Your task to perform on an android device: When is my next appointment? Image 0: 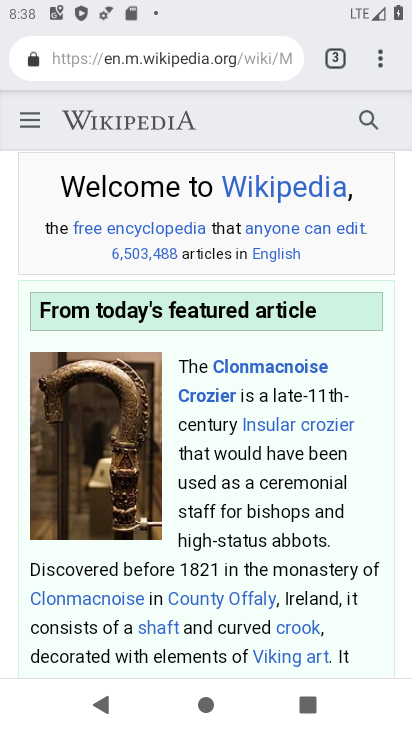
Step 0: press home button
Your task to perform on an android device: When is my next appointment? Image 1: 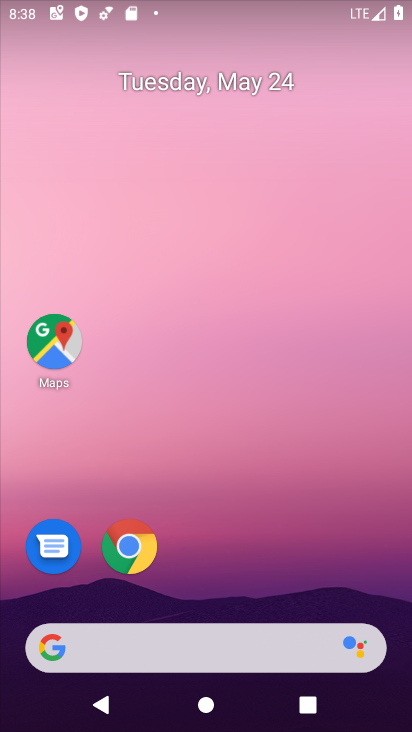
Step 1: drag from (263, 539) to (252, 33)
Your task to perform on an android device: When is my next appointment? Image 2: 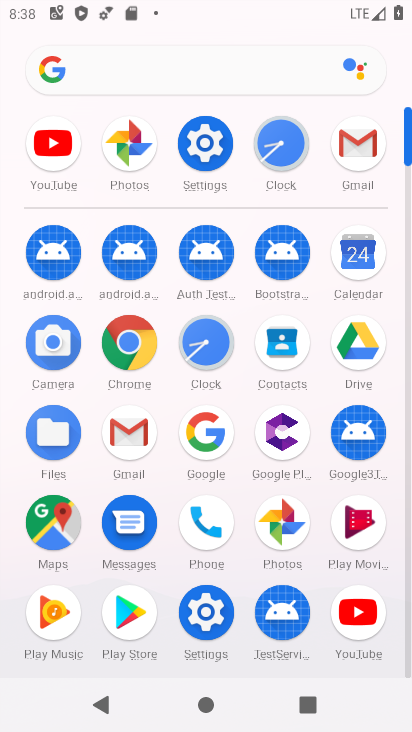
Step 2: click (350, 247)
Your task to perform on an android device: When is my next appointment? Image 3: 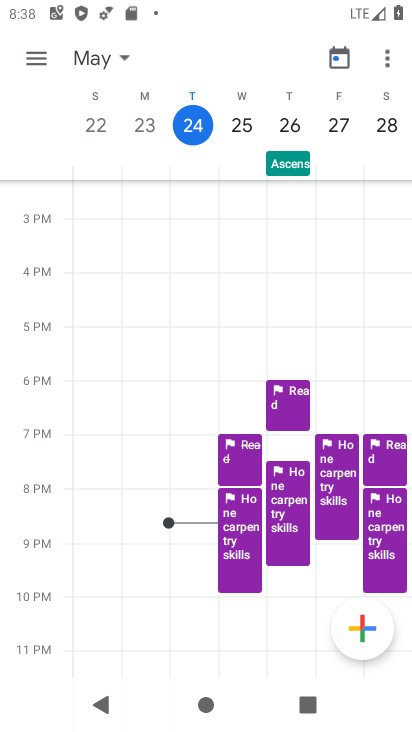
Step 3: click (39, 54)
Your task to perform on an android device: When is my next appointment? Image 4: 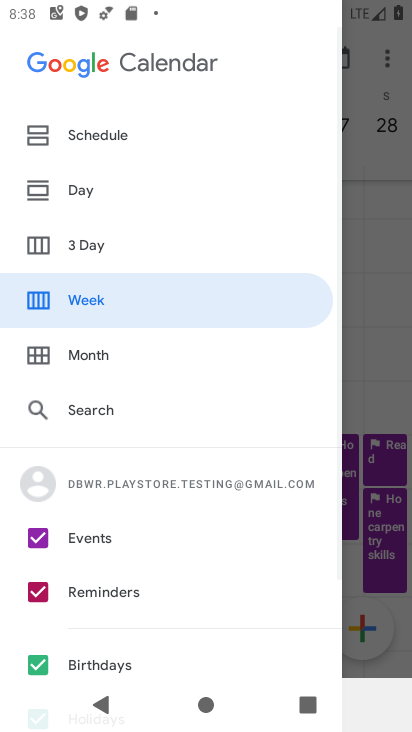
Step 4: click (73, 122)
Your task to perform on an android device: When is my next appointment? Image 5: 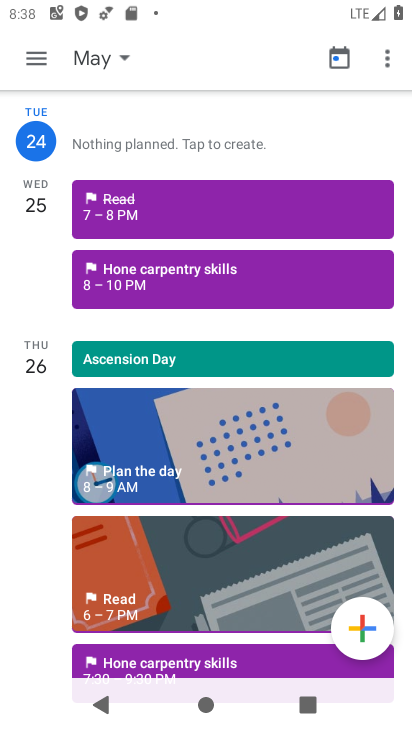
Step 5: task complete